Your task to perform on an android device: Open Youtube and go to the subscriptions tab Image 0: 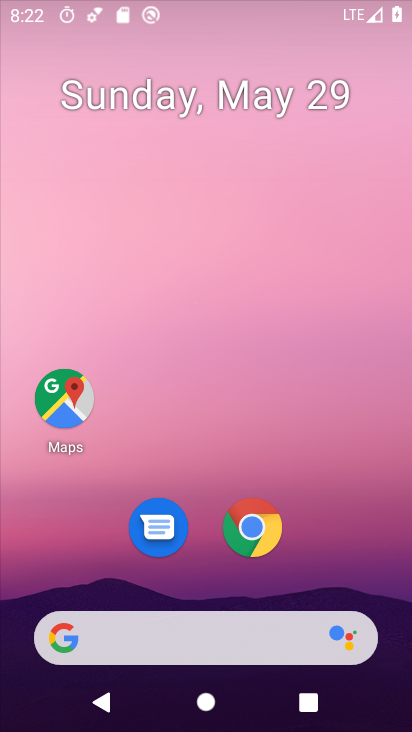
Step 0: press home button
Your task to perform on an android device: Open Youtube and go to the subscriptions tab Image 1: 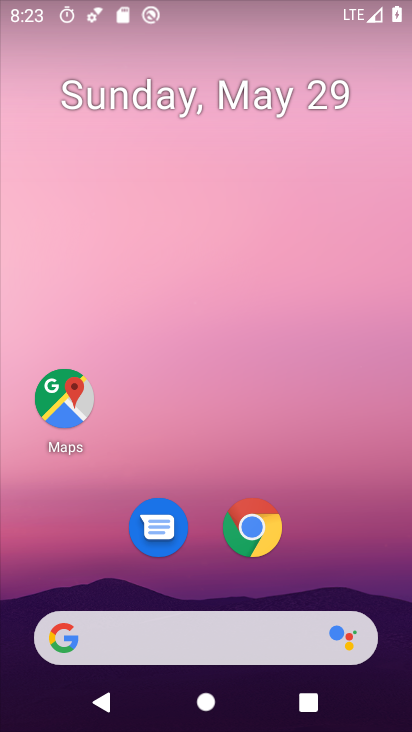
Step 1: drag from (205, 575) to (243, 24)
Your task to perform on an android device: Open Youtube and go to the subscriptions tab Image 2: 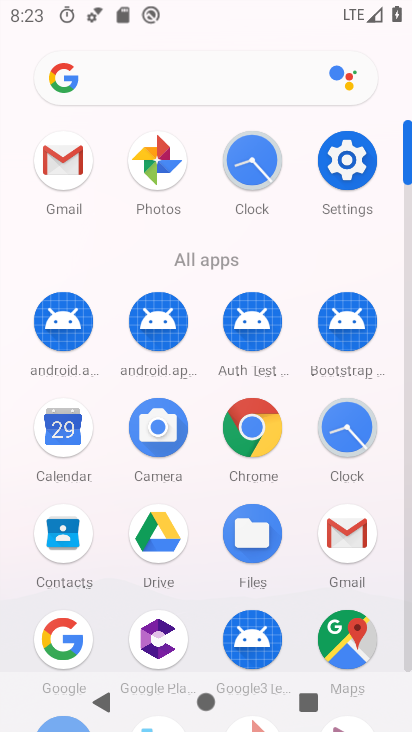
Step 2: drag from (198, 622) to (221, 96)
Your task to perform on an android device: Open Youtube and go to the subscriptions tab Image 3: 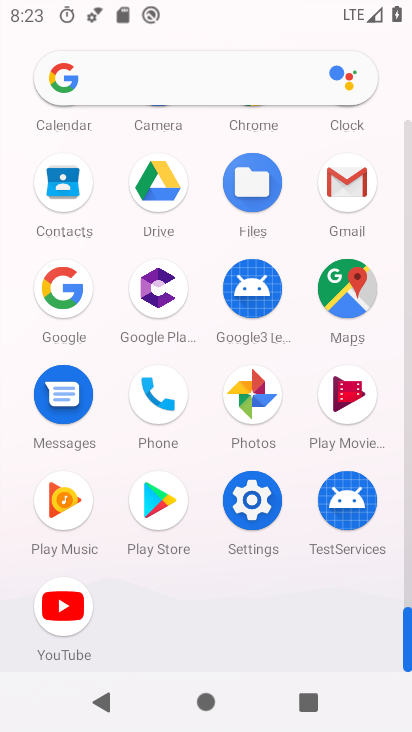
Step 3: click (59, 601)
Your task to perform on an android device: Open Youtube and go to the subscriptions tab Image 4: 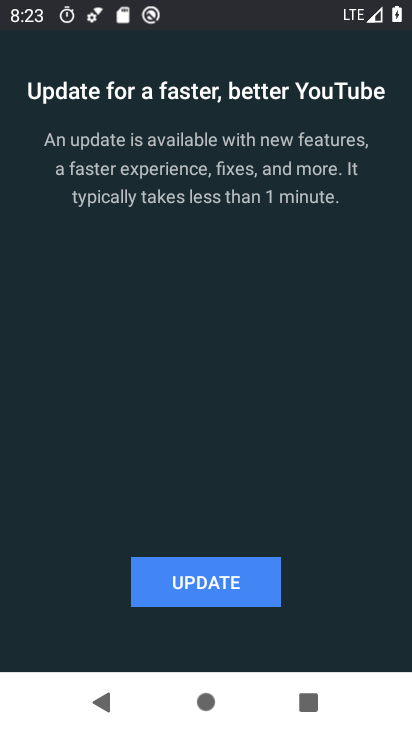
Step 4: click (213, 579)
Your task to perform on an android device: Open Youtube and go to the subscriptions tab Image 5: 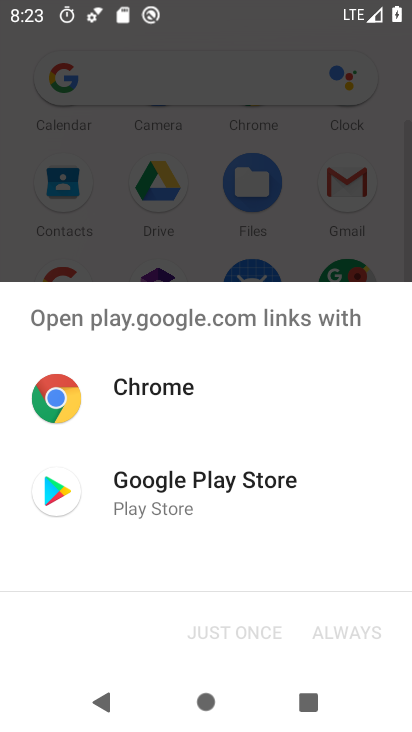
Step 5: click (100, 493)
Your task to perform on an android device: Open Youtube and go to the subscriptions tab Image 6: 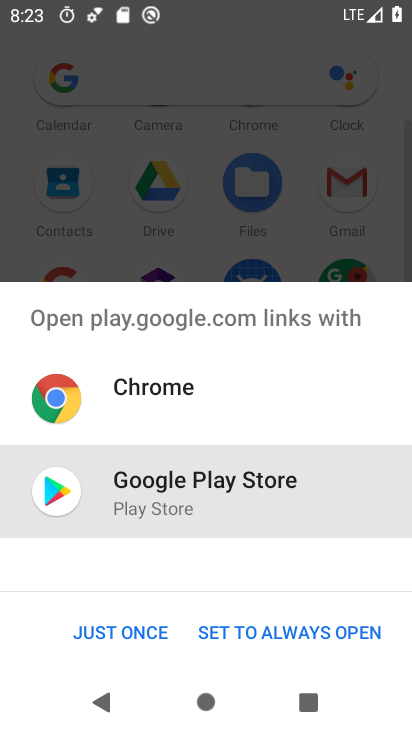
Step 6: click (114, 636)
Your task to perform on an android device: Open Youtube and go to the subscriptions tab Image 7: 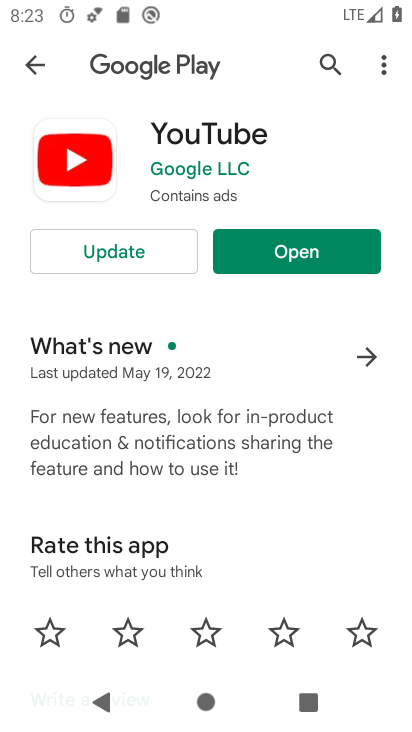
Step 7: click (117, 249)
Your task to perform on an android device: Open Youtube and go to the subscriptions tab Image 8: 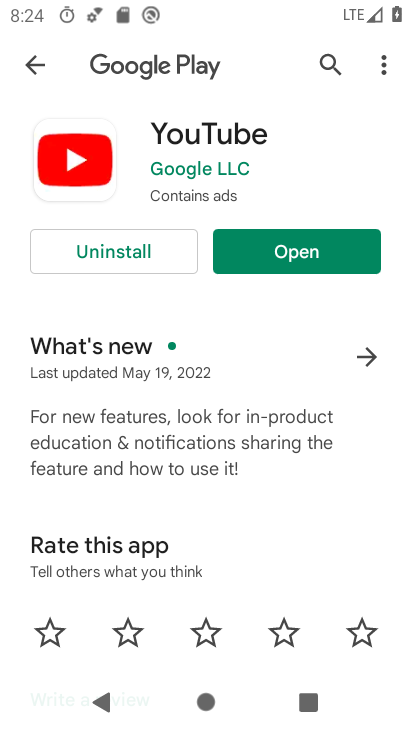
Step 8: click (298, 253)
Your task to perform on an android device: Open Youtube and go to the subscriptions tab Image 9: 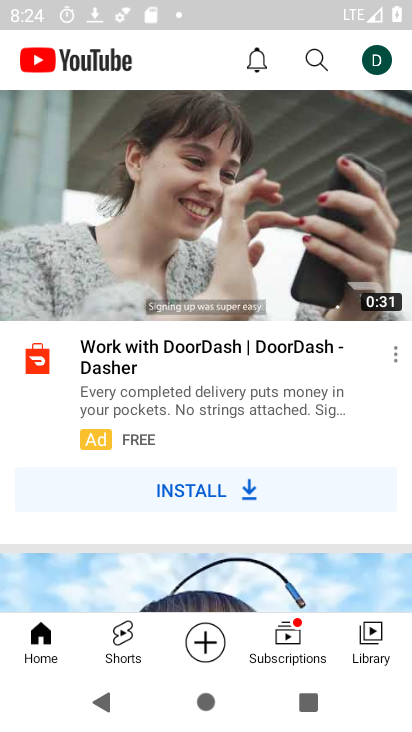
Step 9: click (286, 632)
Your task to perform on an android device: Open Youtube and go to the subscriptions tab Image 10: 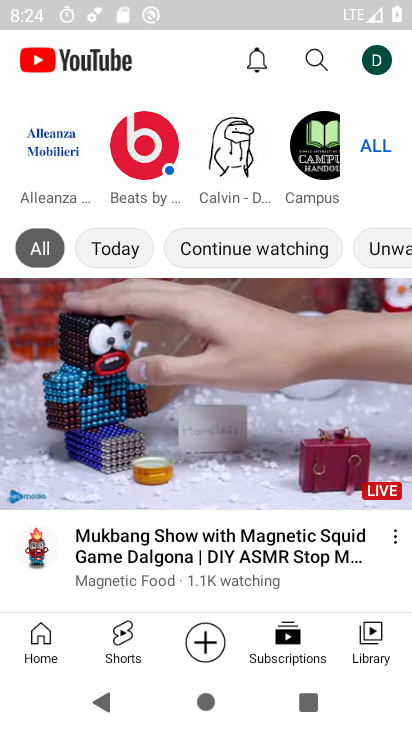
Step 10: task complete